Your task to perform on an android device: visit the assistant section in the google photos Image 0: 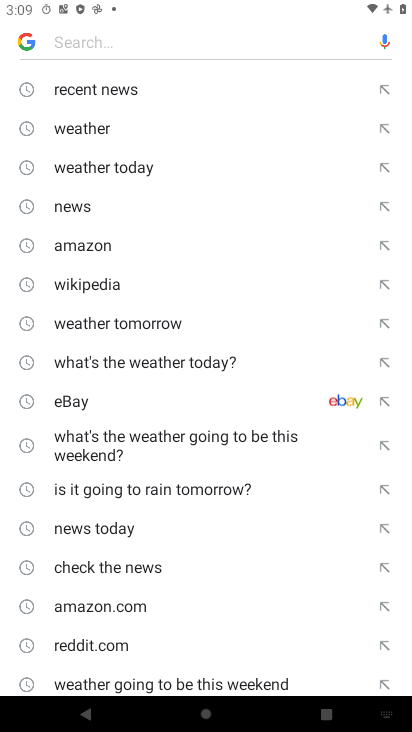
Step 0: press home button
Your task to perform on an android device: visit the assistant section in the google photos Image 1: 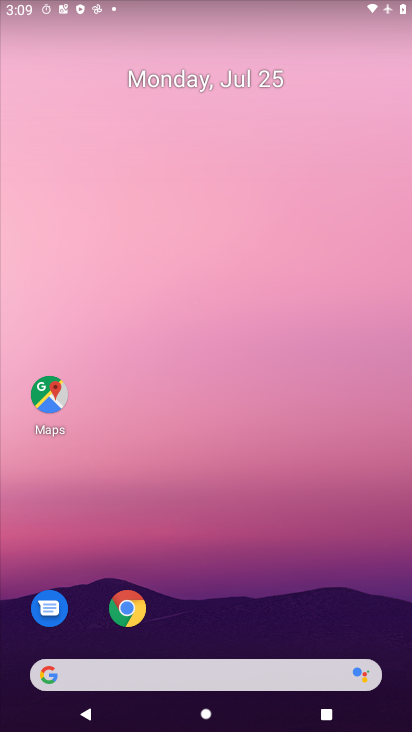
Step 1: drag from (321, 625) to (327, 143)
Your task to perform on an android device: visit the assistant section in the google photos Image 2: 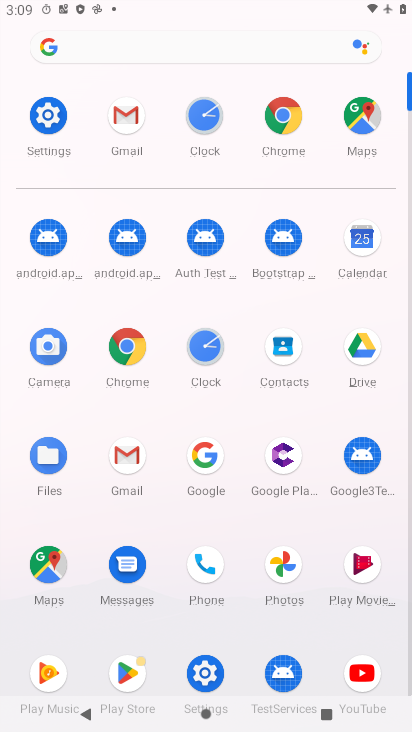
Step 2: click (285, 568)
Your task to perform on an android device: visit the assistant section in the google photos Image 3: 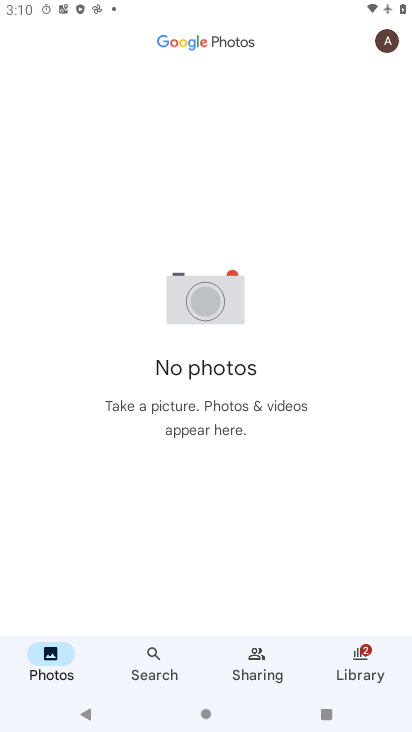
Step 3: click (388, 51)
Your task to perform on an android device: visit the assistant section in the google photos Image 4: 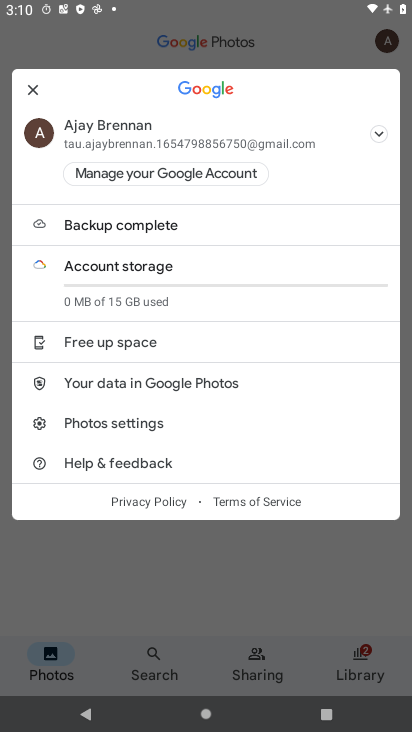
Step 4: task complete